Your task to perform on an android device: toggle wifi Image 0: 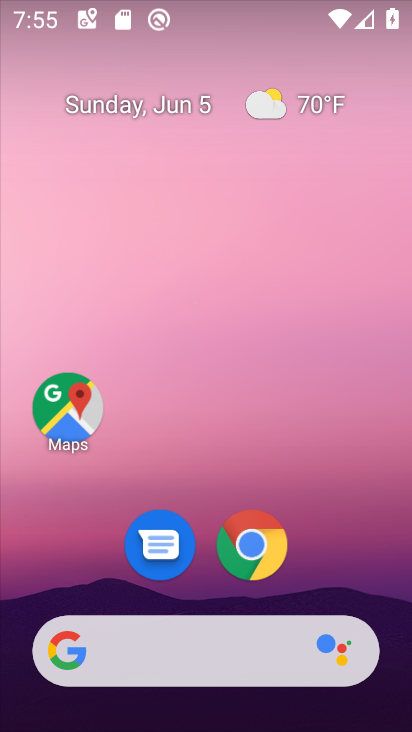
Step 0: drag from (343, 577) to (353, 225)
Your task to perform on an android device: toggle wifi Image 1: 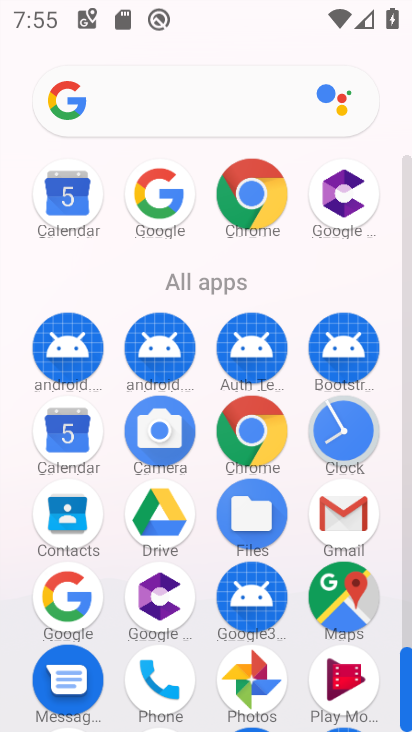
Step 1: drag from (232, 606) to (298, 163)
Your task to perform on an android device: toggle wifi Image 2: 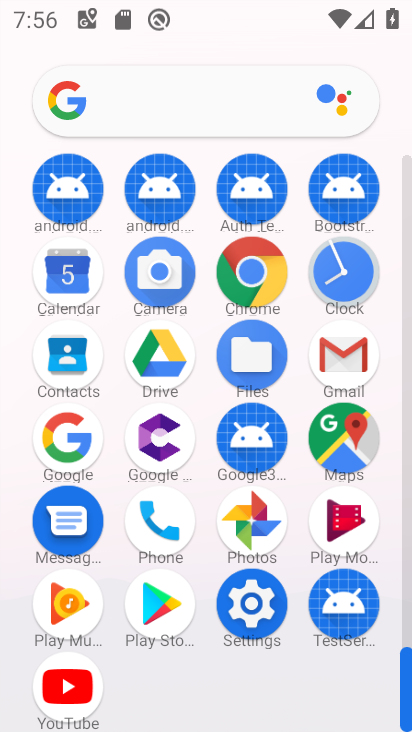
Step 2: click (242, 609)
Your task to perform on an android device: toggle wifi Image 3: 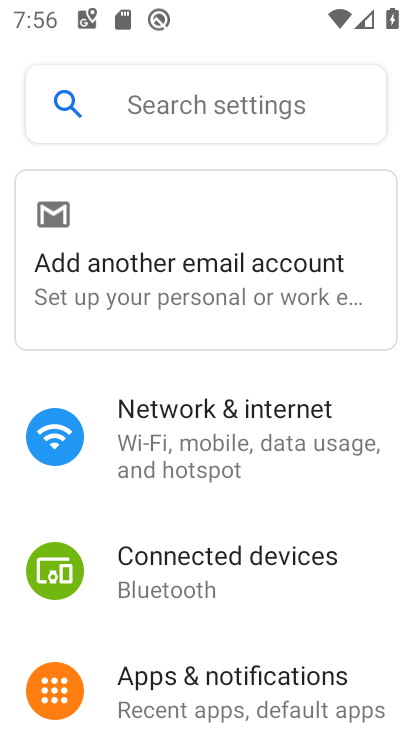
Step 3: click (207, 471)
Your task to perform on an android device: toggle wifi Image 4: 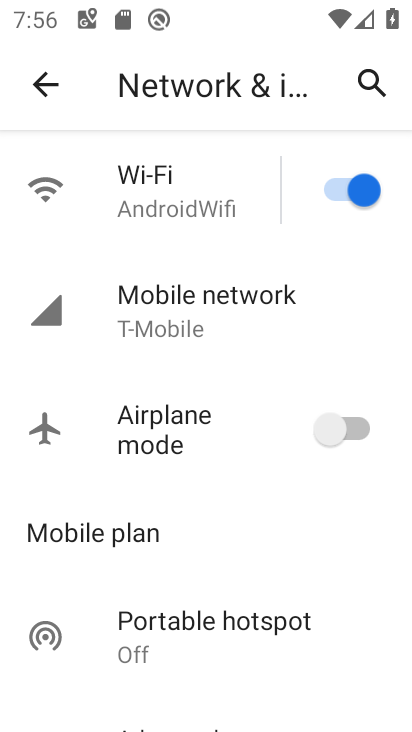
Step 4: click (341, 187)
Your task to perform on an android device: toggle wifi Image 5: 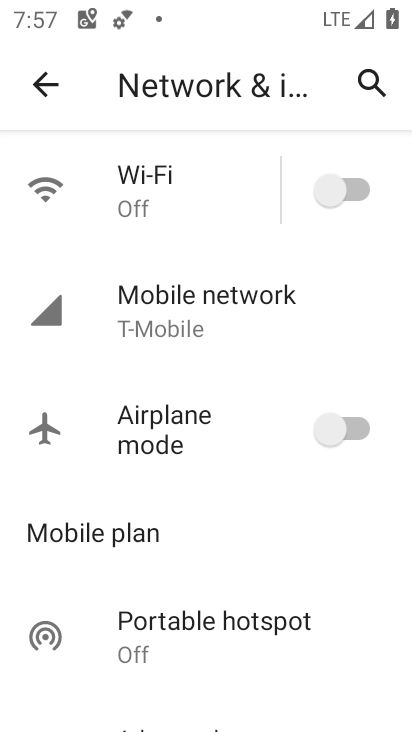
Step 5: task complete